Your task to perform on an android device: open a bookmark in the chrome app Image 0: 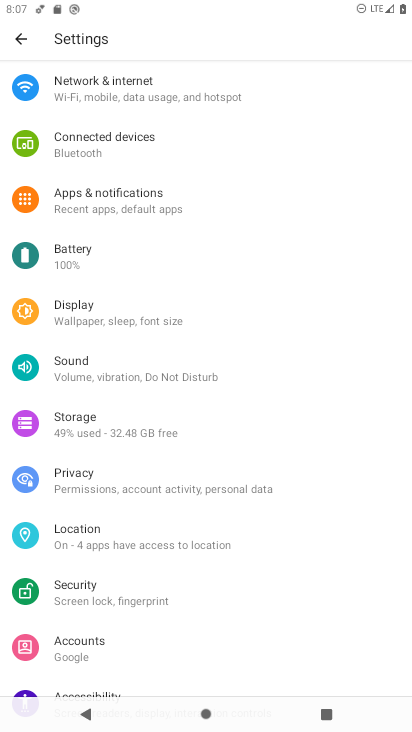
Step 0: press back button
Your task to perform on an android device: open a bookmark in the chrome app Image 1: 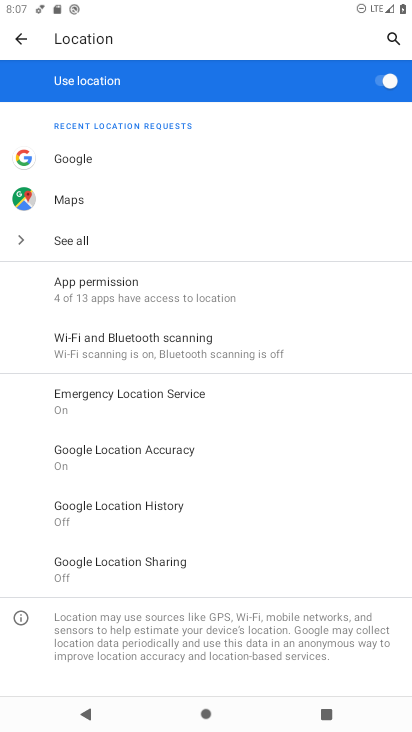
Step 1: press back button
Your task to perform on an android device: open a bookmark in the chrome app Image 2: 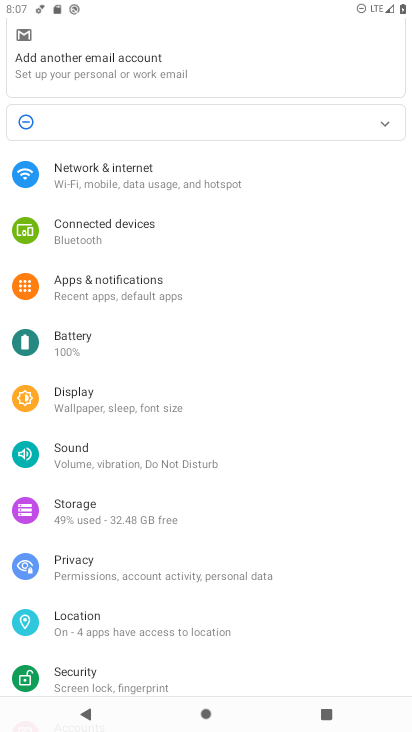
Step 2: press back button
Your task to perform on an android device: open a bookmark in the chrome app Image 3: 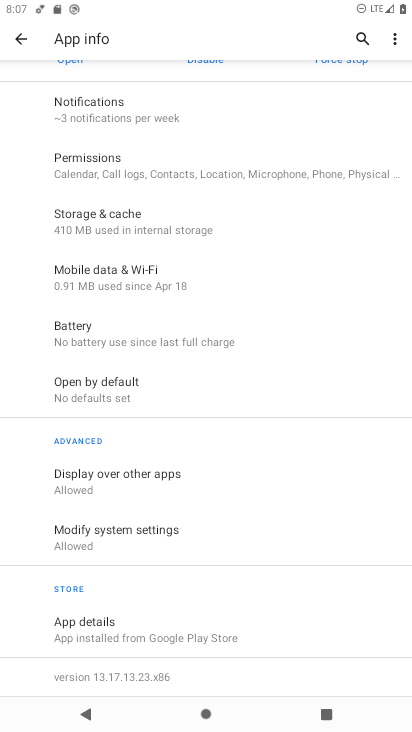
Step 3: press back button
Your task to perform on an android device: open a bookmark in the chrome app Image 4: 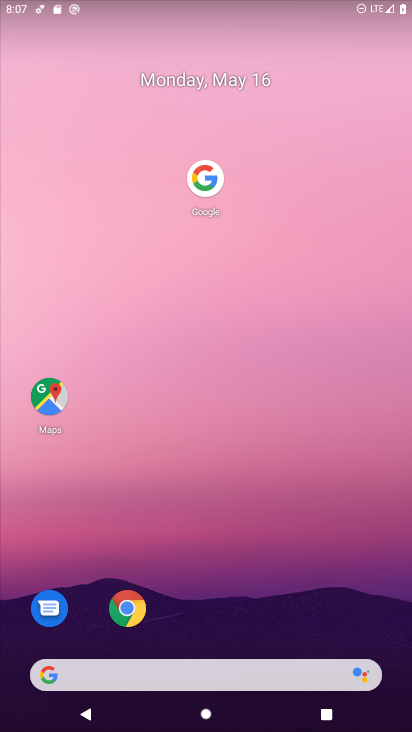
Step 4: click (126, 608)
Your task to perform on an android device: open a bookmark in the chrome app Image 5: 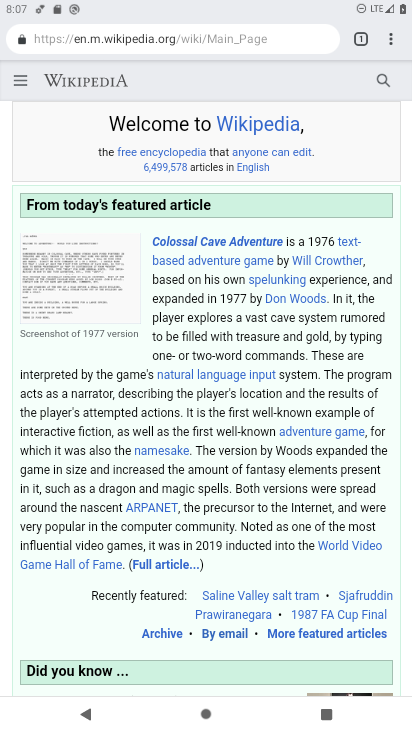
Step 5: click (392, 38)
Your task to perform on an android device: open a bookmark in the chrome app Image 6: 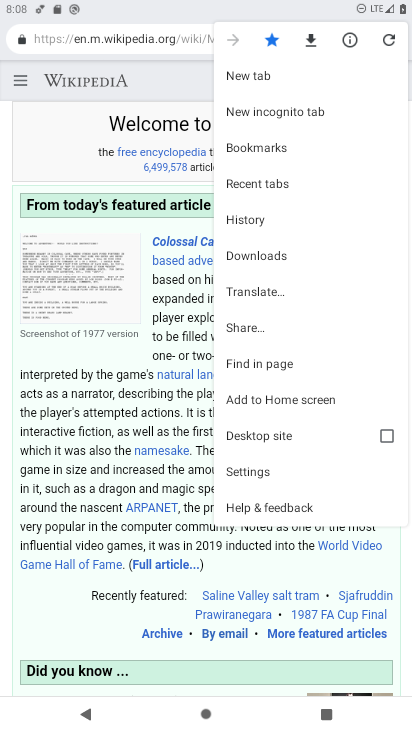
Step 6: click (281, 154)
Your task to perform on an android device: open a bookmark in the chrome app Image 7: 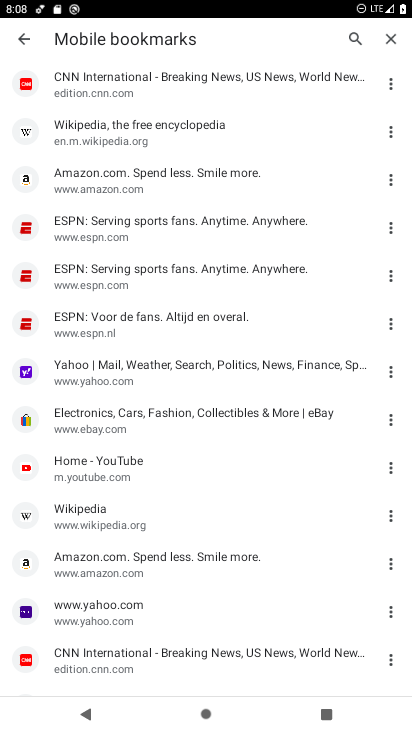
Step 7: task complete